Your task to perform on an android device: Go to Maps Image 0: 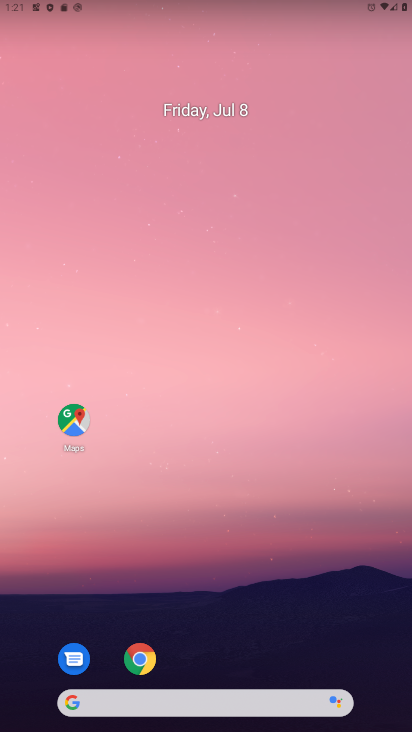
Step 0: click (63, 419)
Your task to perform on an android device: Go to Maps Image 1: 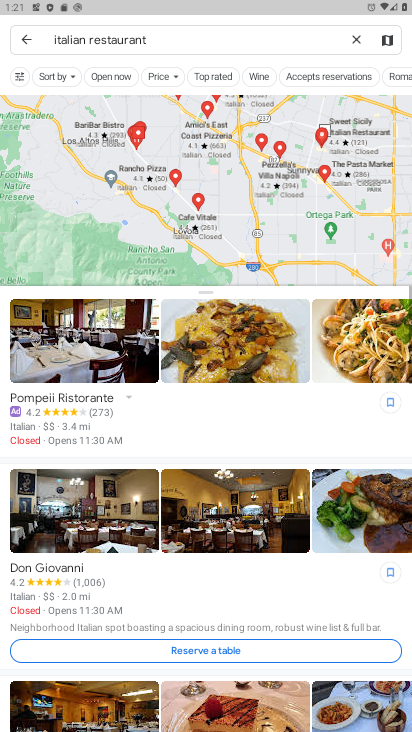
Step 1: task complete